Your task to perform on an android device: empty trash in the gmail app Image 0: 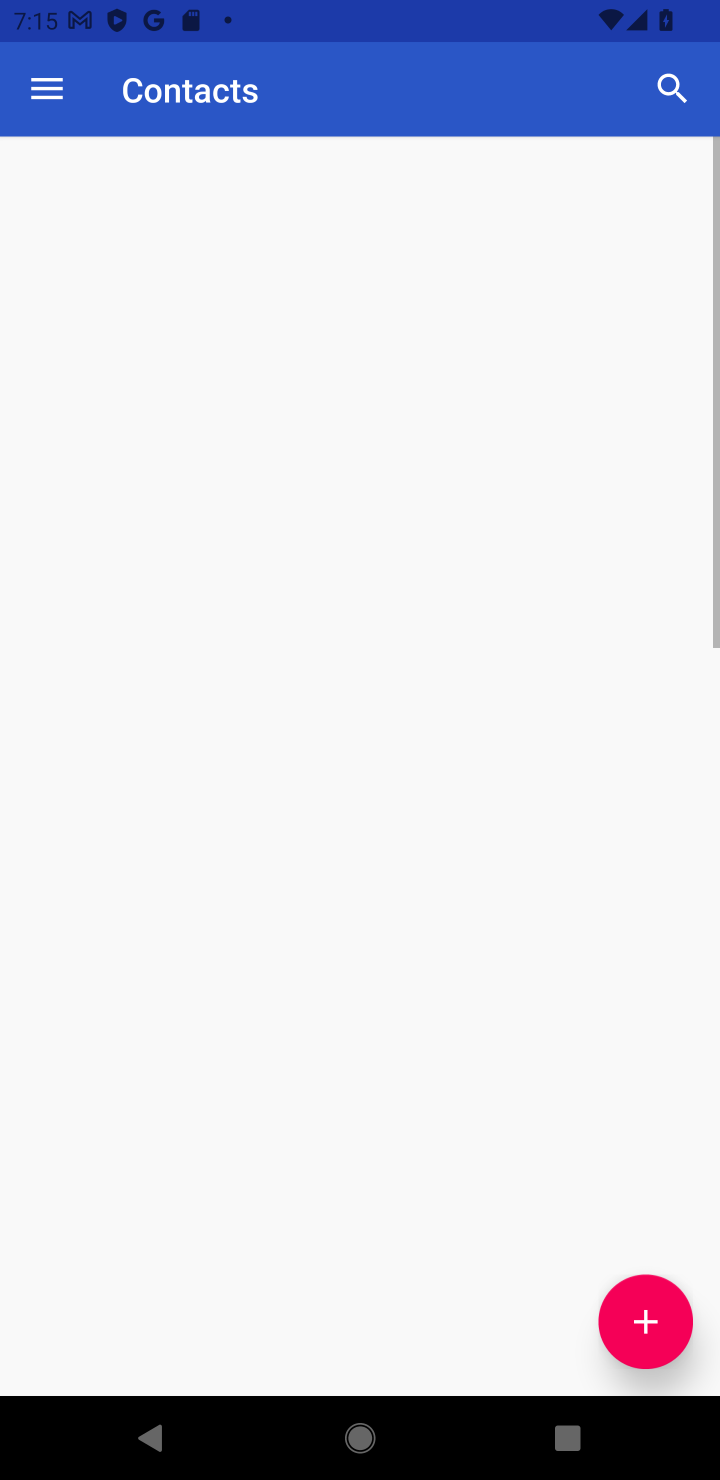
Step 0: press home button
Your task to perform on an android device: empty trash in the gmail app Image 1: 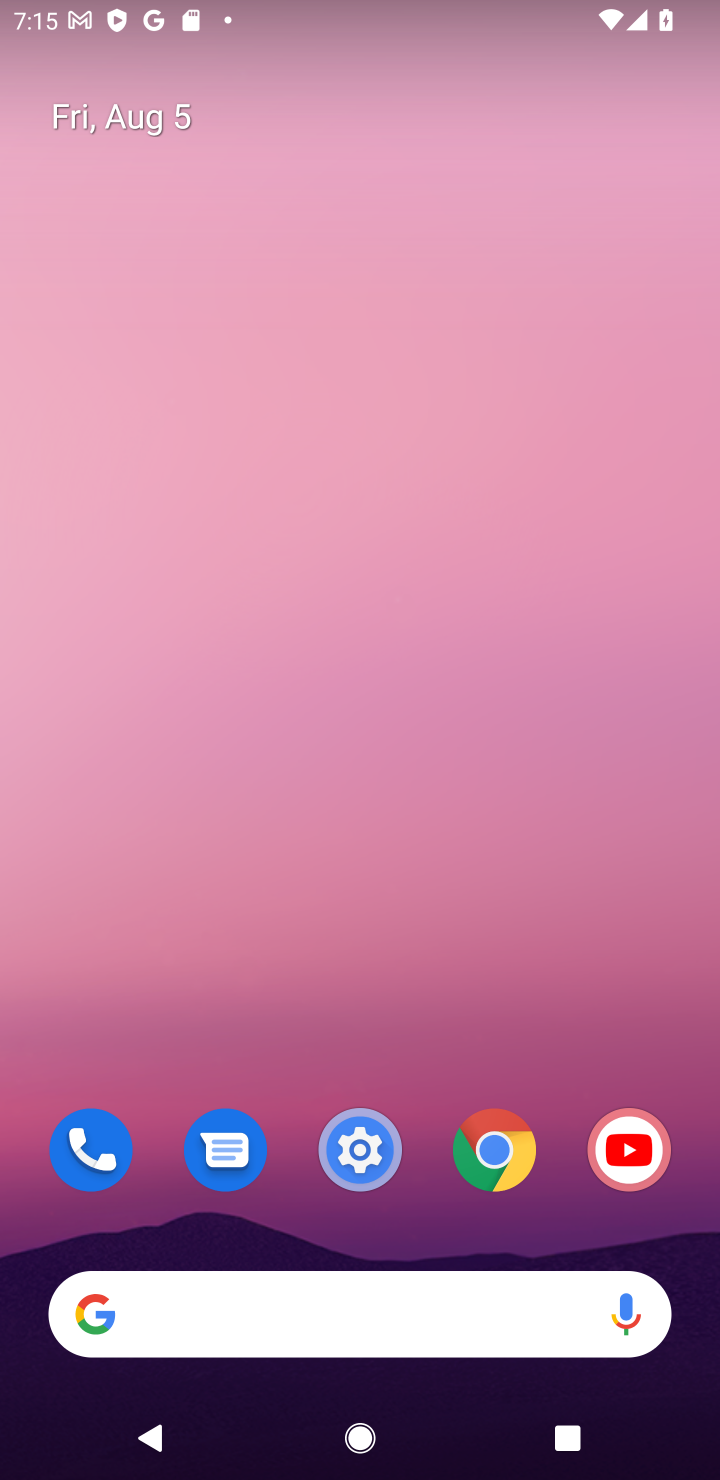
Step 1: drag from (150, 1088) to (231, 303)
Your task to perform on an android device: empty trash in the gmail app Image 2: 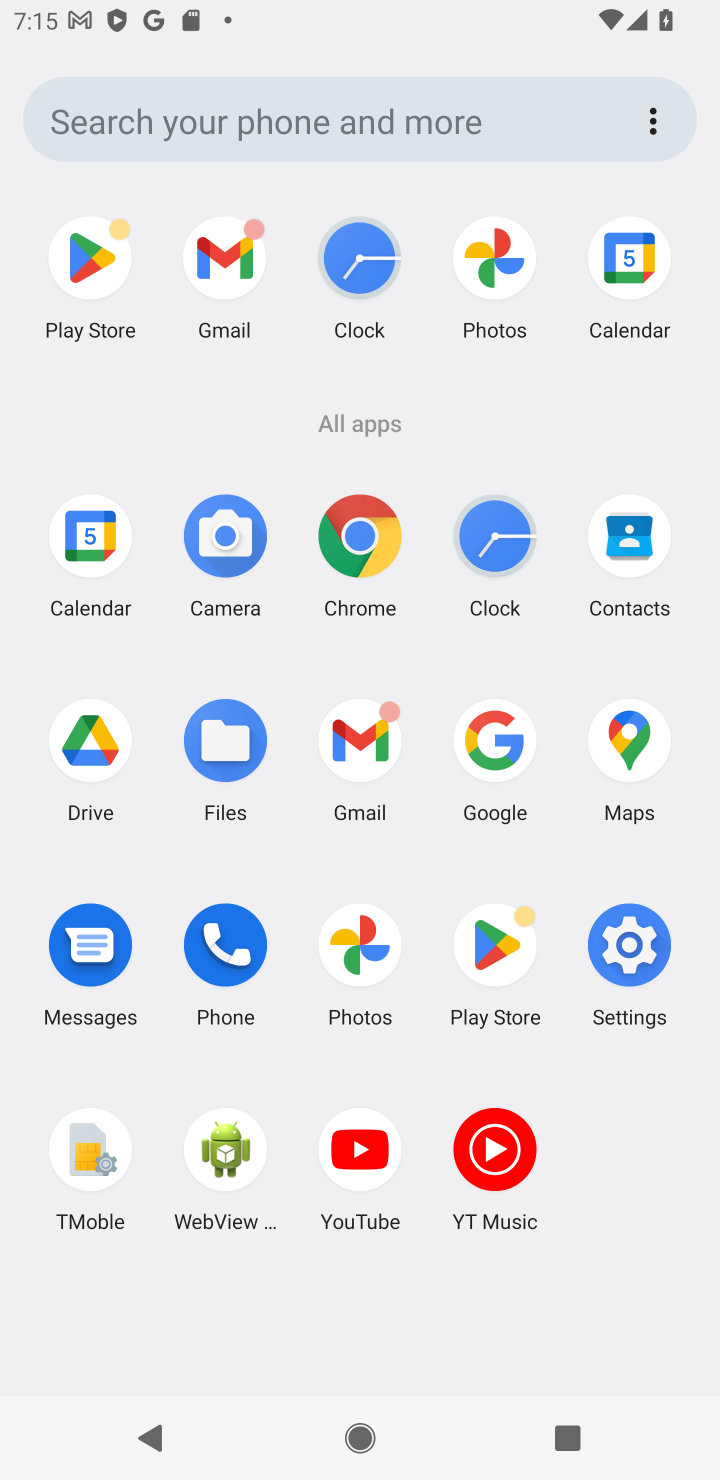
Step 2: click (375, 736)
Your task to perform on an android device: empty trash in the gmail app Image 3: 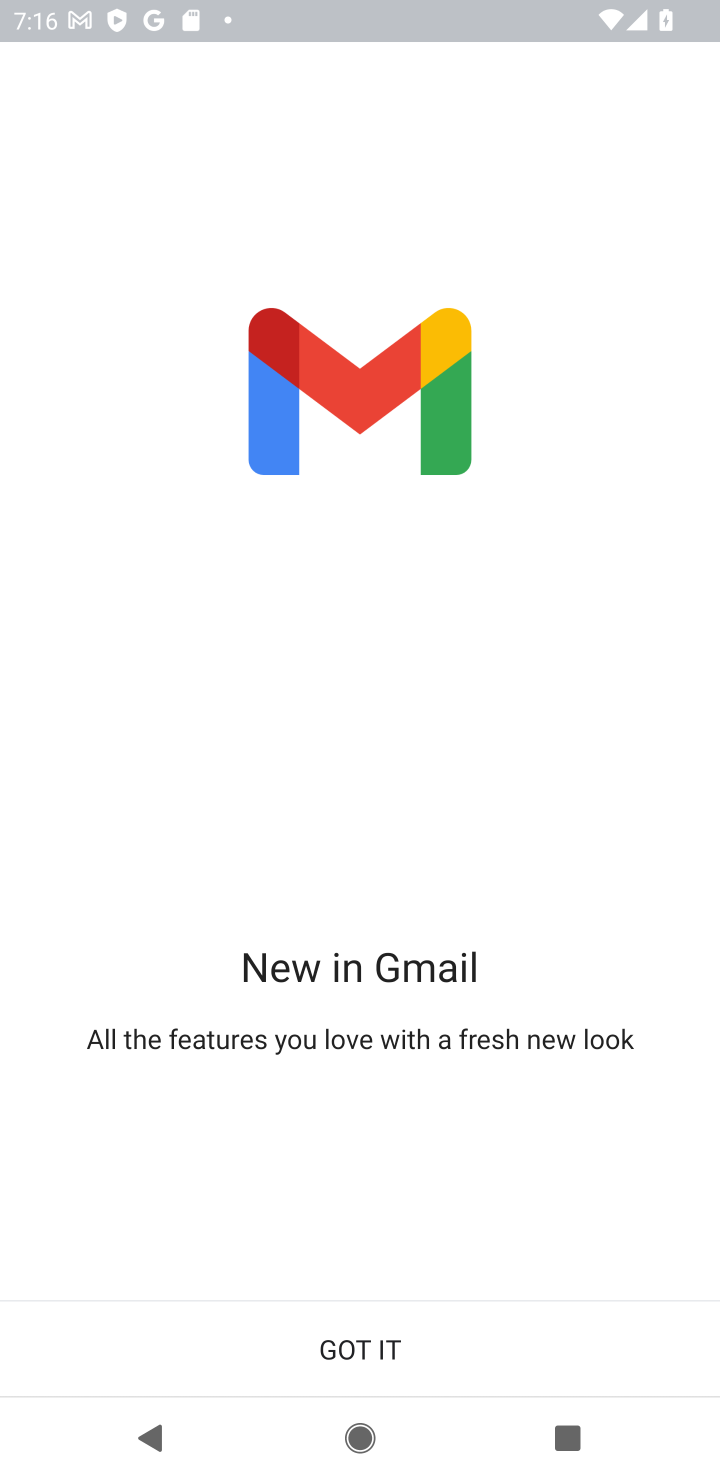
Step 3: click (357, 1344)
Your task to perform on an android device: empty trash in the gmail app Image 4: 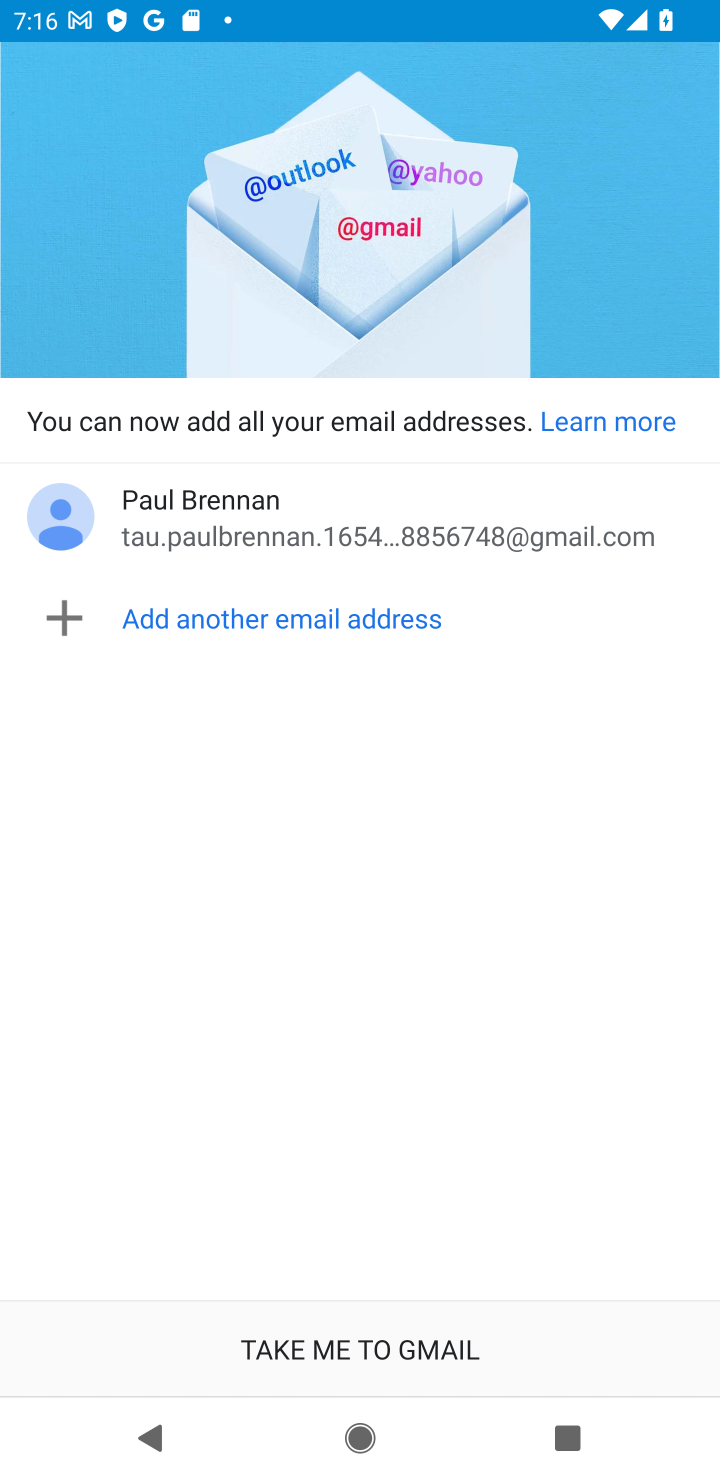
Step 4: click (494, 1338)
Your task to perform on an android device: empty trash in the gmail app Image 5: 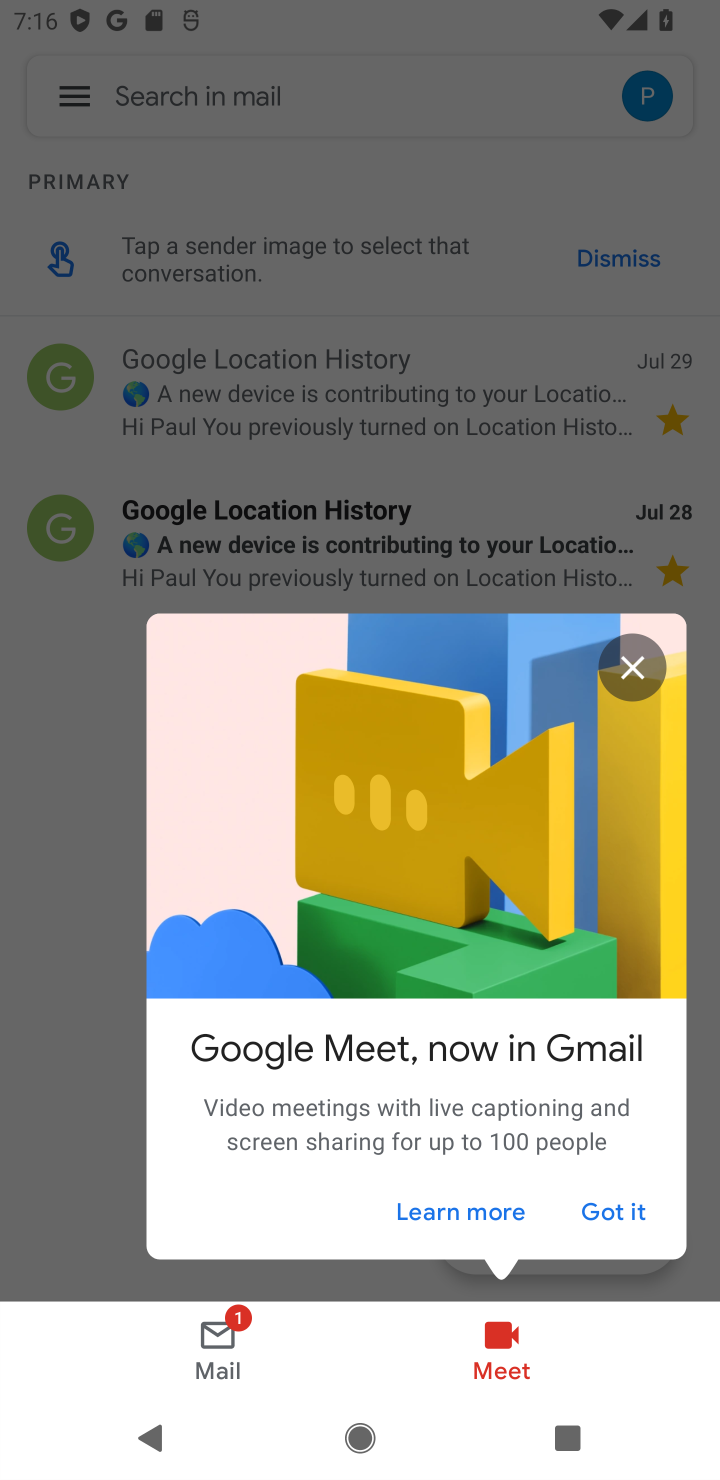
Step 5: click (639, 659)
Your task to perform on an android device: empty trash in the gmail app Image 6: 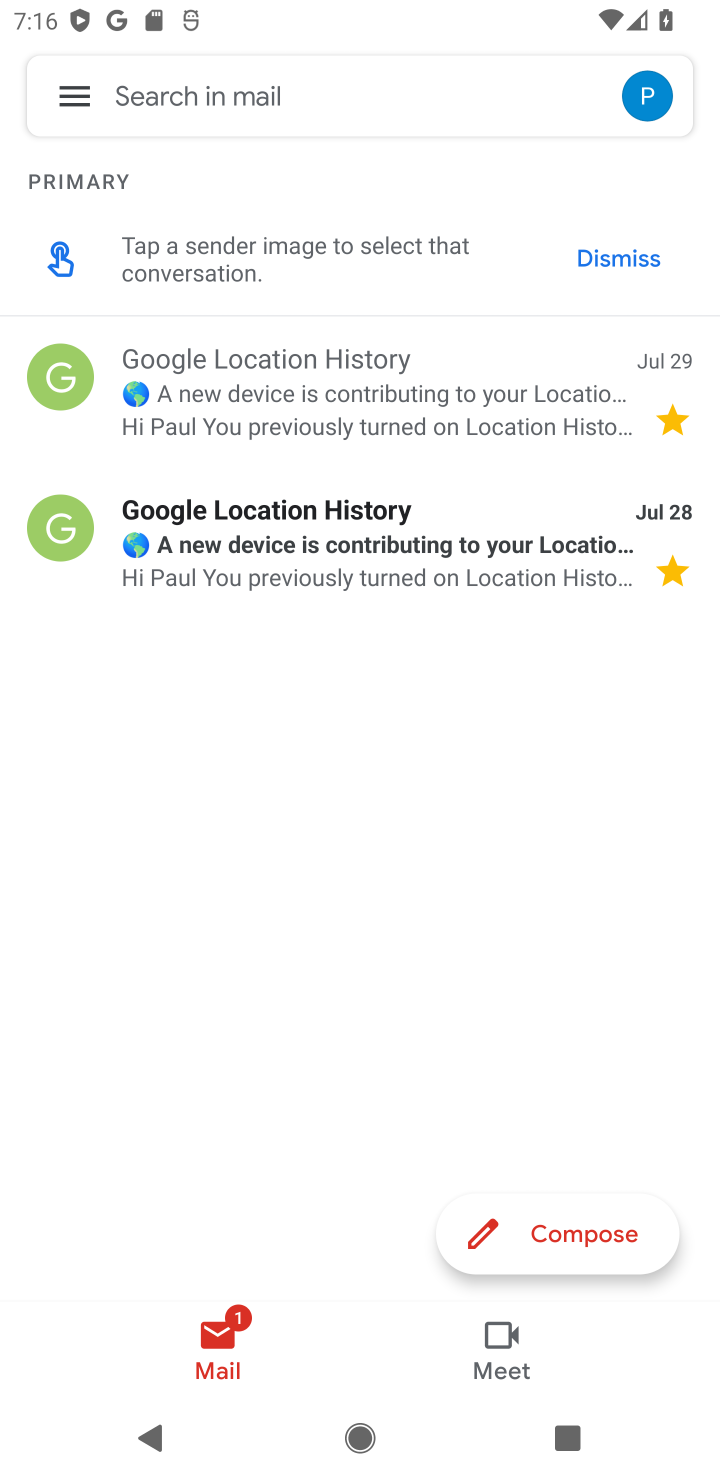
Step 6: click (58, 90)
Your task to perform on an android device: empty trash in the gmail app Image 7: 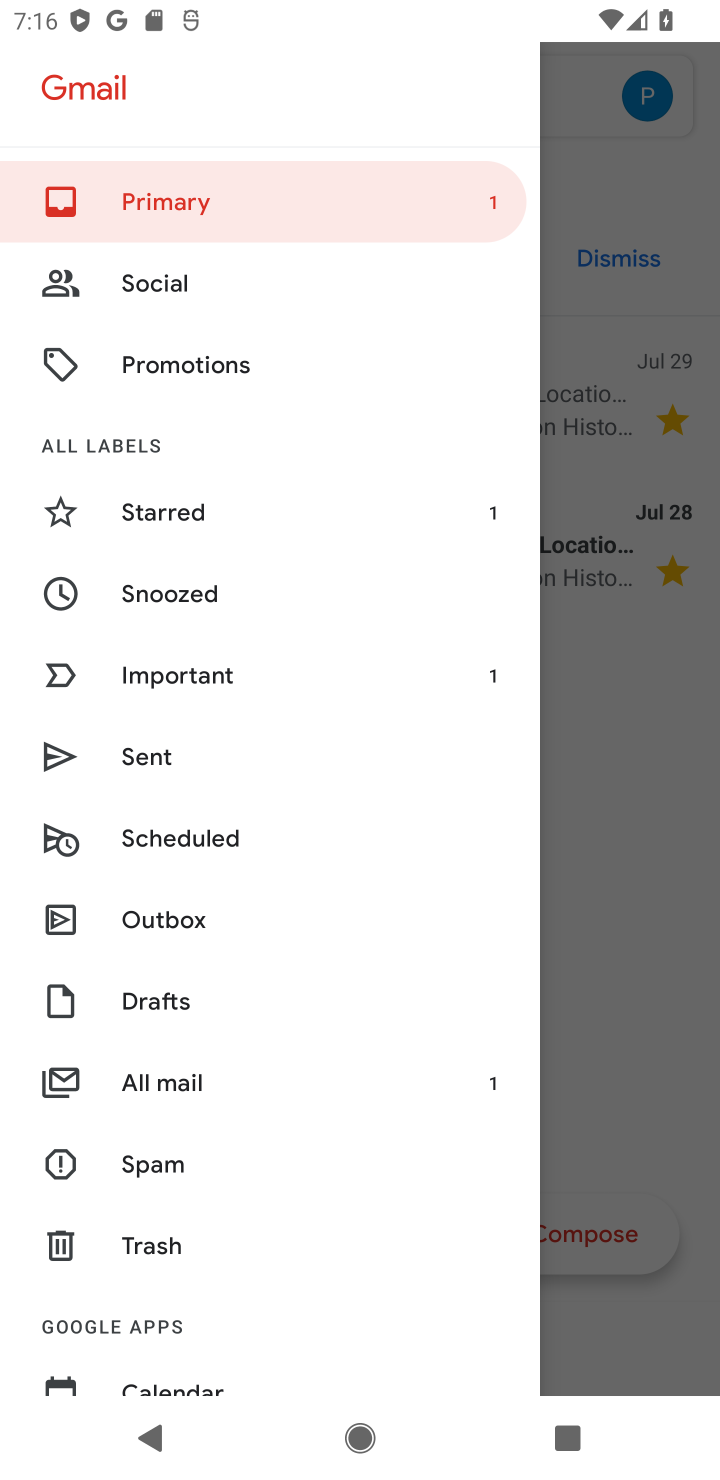
Step 7: click (145, 1259)
Your task to perform on an android device: empty trash in the gmail app Image 8: 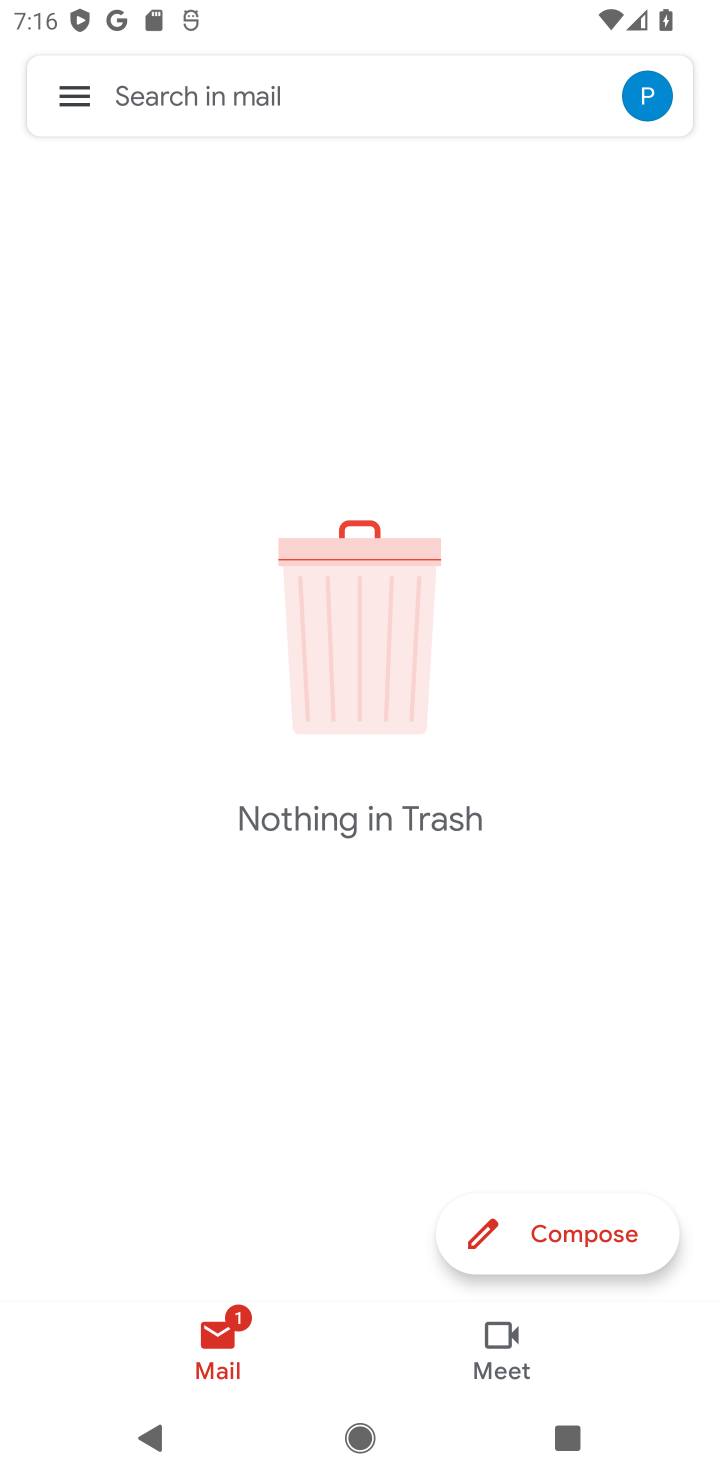
Step 8: task complete